Your task to perform on an android device: toggle notification dots Image 0: 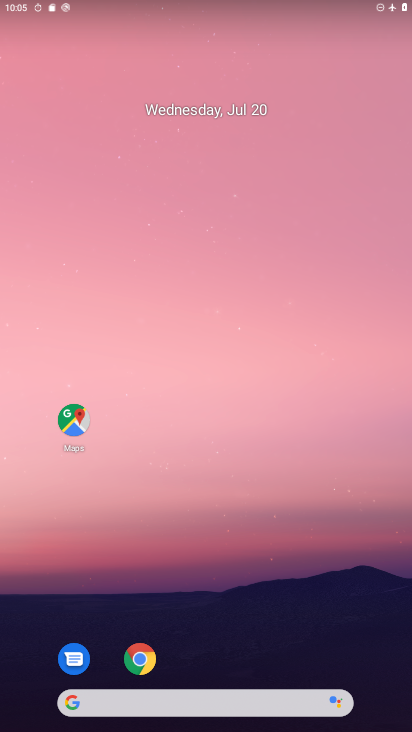
Step 0: drag from (291, 571) to (239, 0)
Your task to perform on an android device: toggle notification dots Image 1: 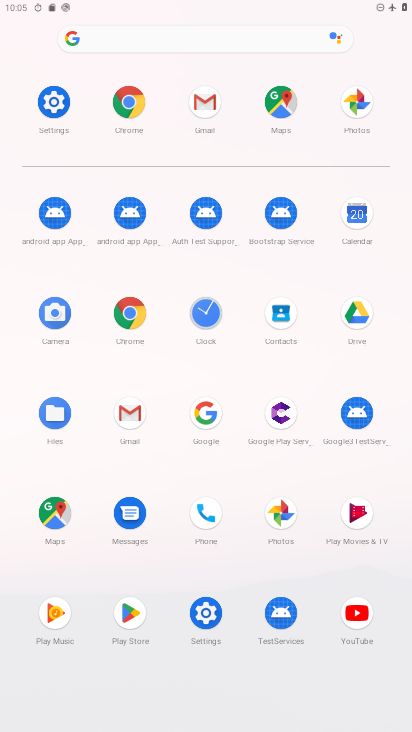
Step 1: click (64, 104)
Your task to perform on an android device: toggle notification dots Image 2: 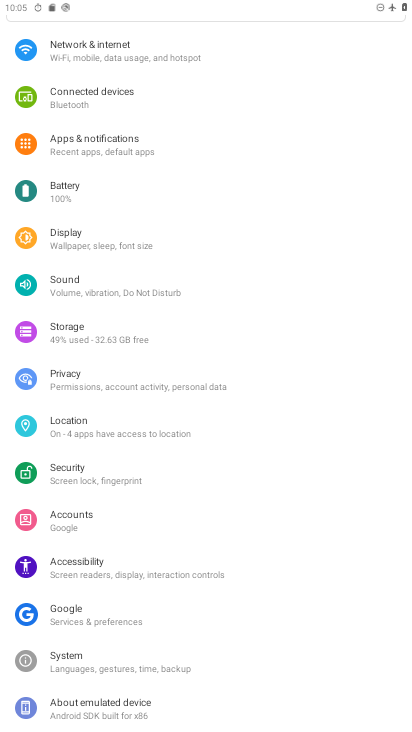
Step 2: click (96, 144)
Your task to perform on an android device: toggle notification dots Image 3: 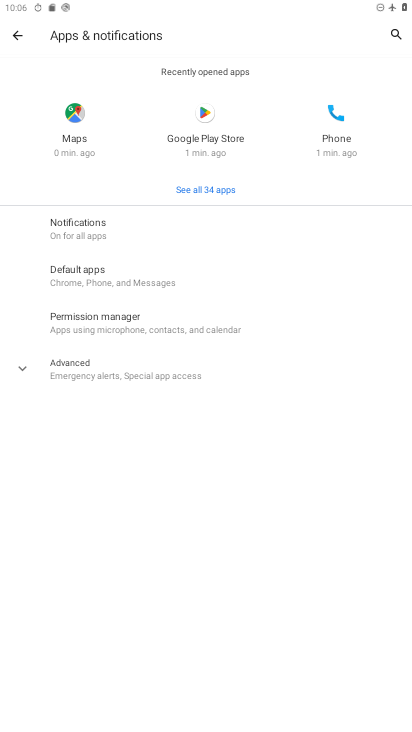
Step 3: click (82, 221)
Your task to perform on an android device: toggle notification dots Image 4: 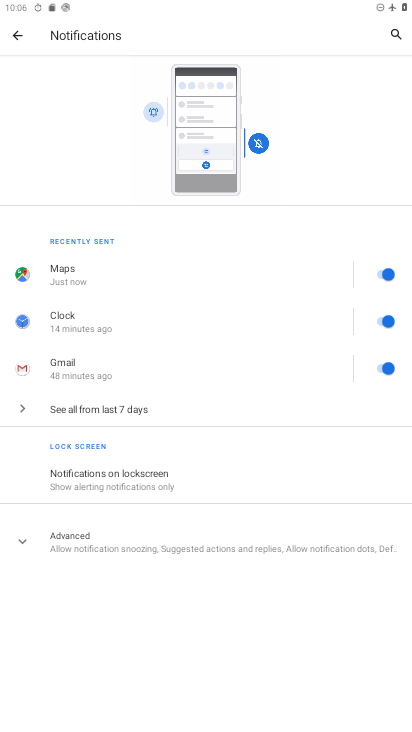
Step 4: click (109, 538)
Your task to perform on an android device: toggle notification dots Image 5: 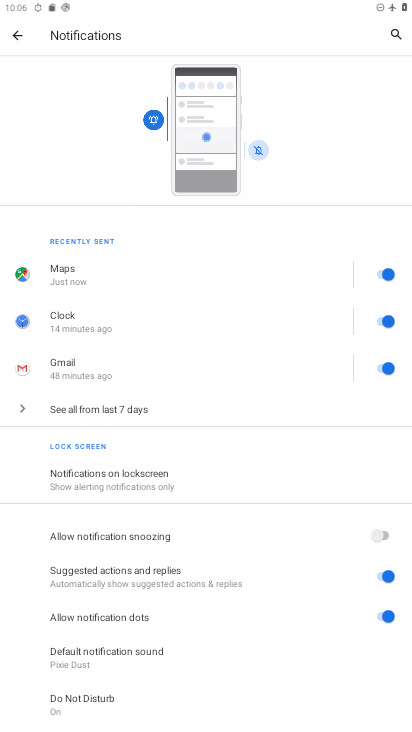
Step 5: click (384, 610)
Your task to perform on an android device: toggle notification dots Image 6: 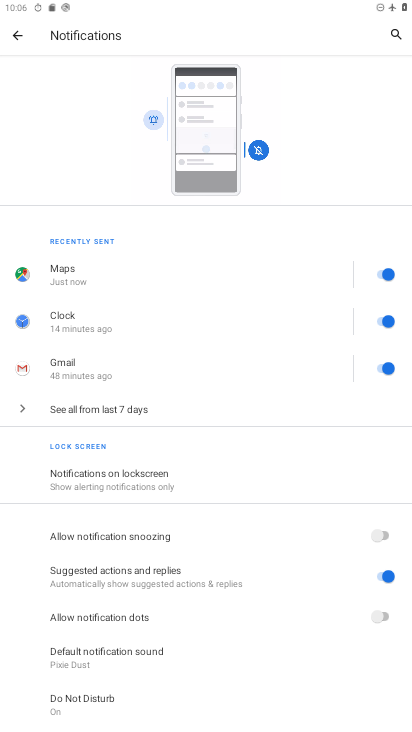
Step 6: task complete